Your task to perform on an android device: turn on the 12-hour format for clock Image 0: 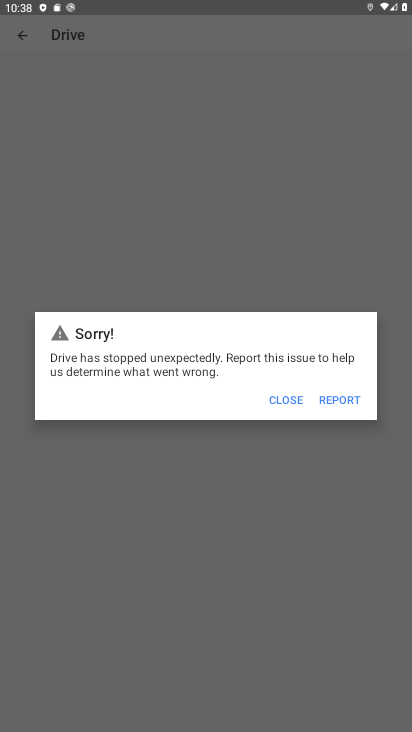
Step 0: press home button
Your task to perform on an android device: turn on the 12-hour format for clock Image 1: 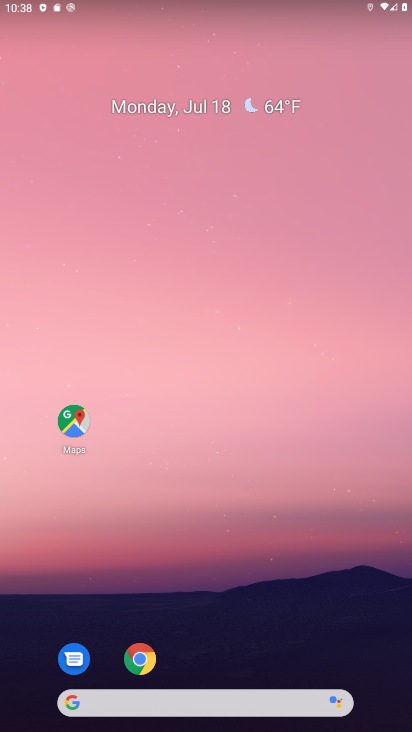
Step 1: drag from (360, 672) to (409, 118)
Your task to perform on an android device: turn on the 12-hour format for clock Image 2: 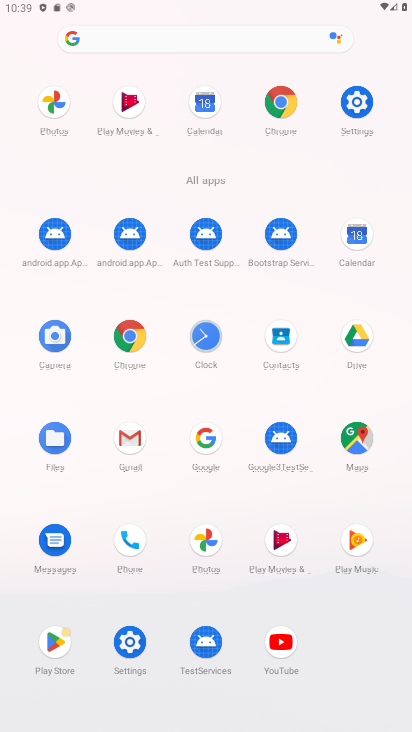
Step 2: click (211, 336)
Your task to perform on an android device: turn on the 12-hour format for clock Image 3: 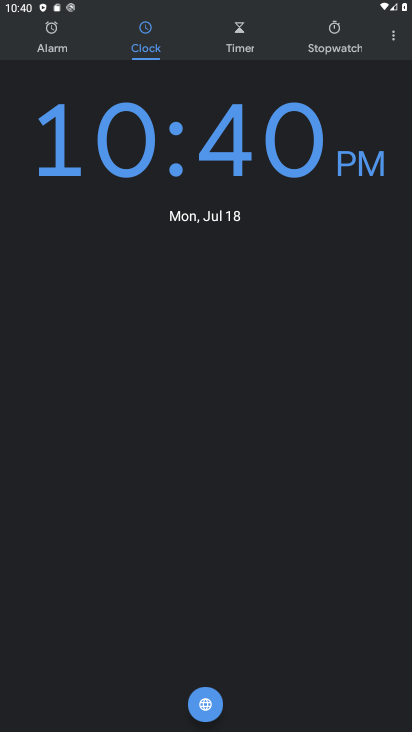
Step 3: drag from (400, 34) to (339, 250)
Your task to perform on an android device: turn on the 12-hour format for clock Image 4: 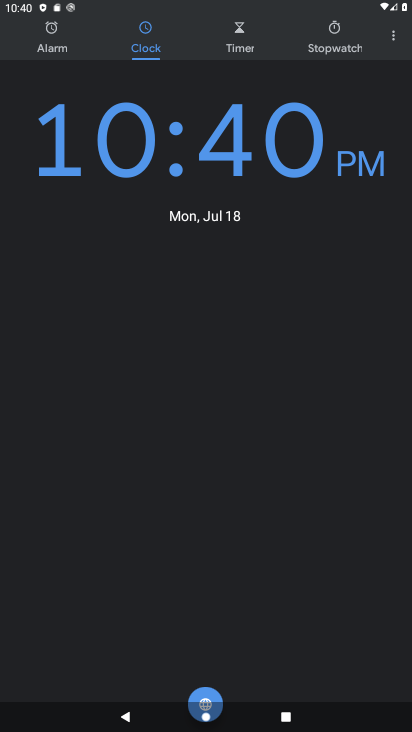
Step 4: click (396, 29)
Your task to perform on an android device: turn on the 12-hour format for clock Image 5: 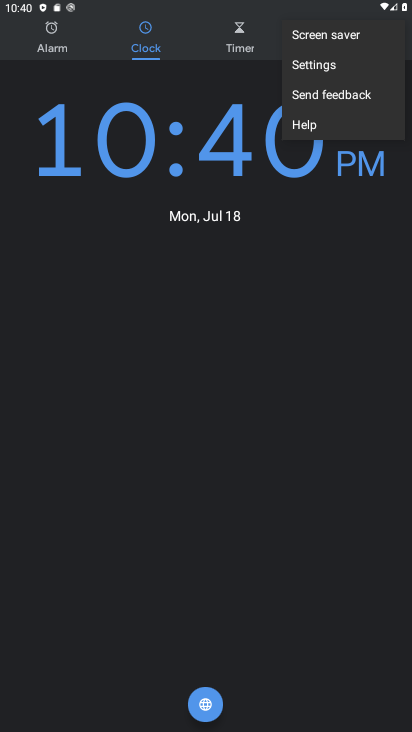
Step 5: click (343, 61)
Your task to perform on an android device: turn on the 12-hour format for clock Image 6: 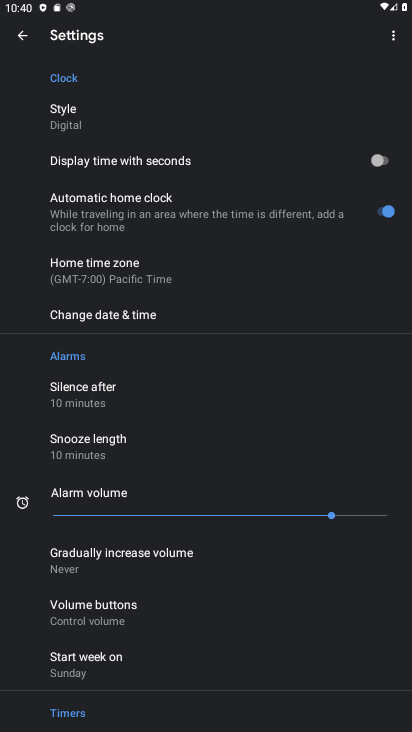
Step 6: click (167, 327)
Your task to perform on an android device: turn on the 12-hour format for clock Image 7: 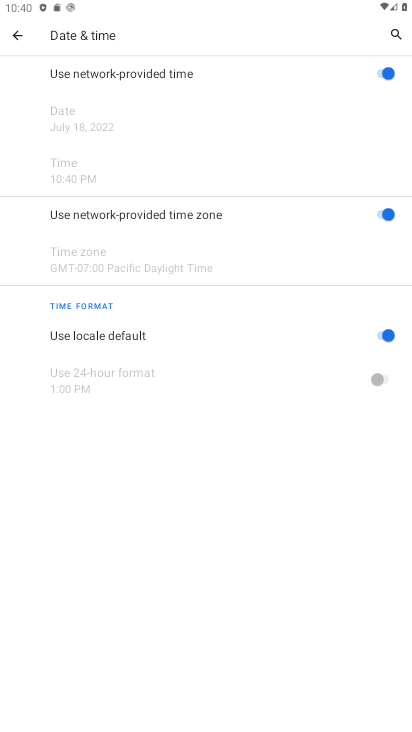
Step 7: click (384, 330)
Your task to perform on an android device: turn on the 12-hour format for clock Image 8: 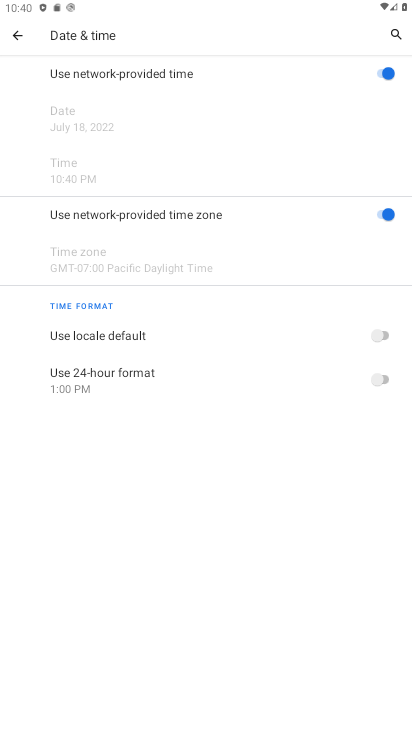
Step 8: task complete